Your task to perform on an android device: open wifi settings Image 0: 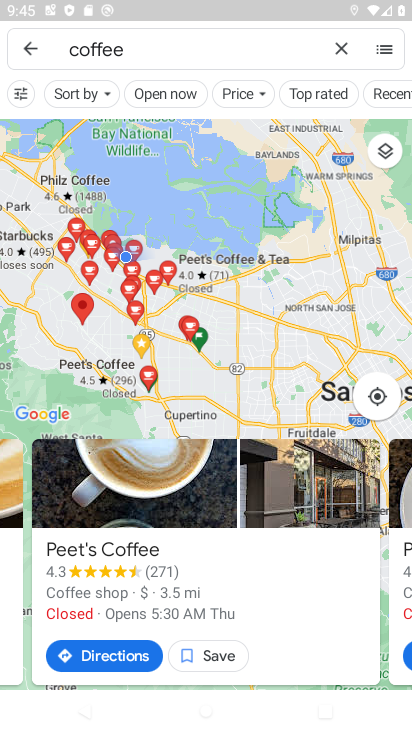
Step 0: press home button
Your task to perform on an android device: open wifi settings Image 1: 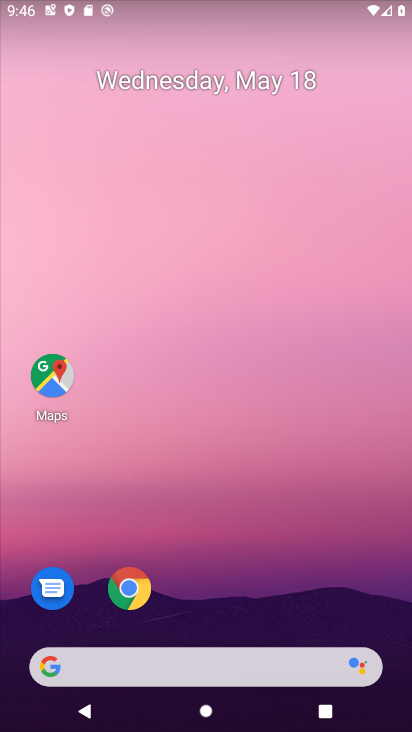
Step 1: drag from (263, 695) to (169, 135)
Your task to perform on an android device: open wifi settings Image 2: 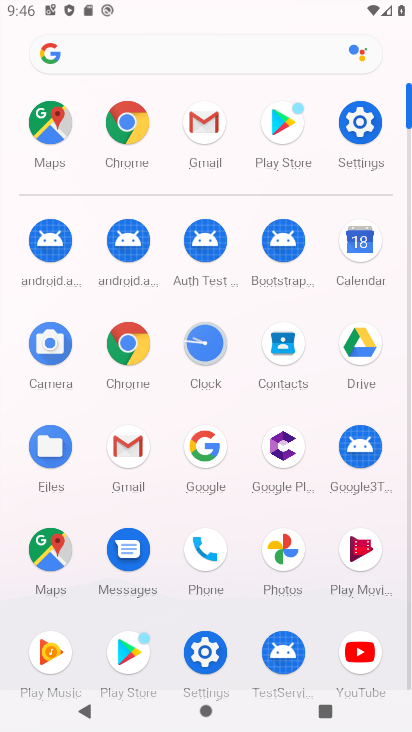
Step 2: click (354, 134)
Your task to perform on an android device: open wifi settings Image 3: 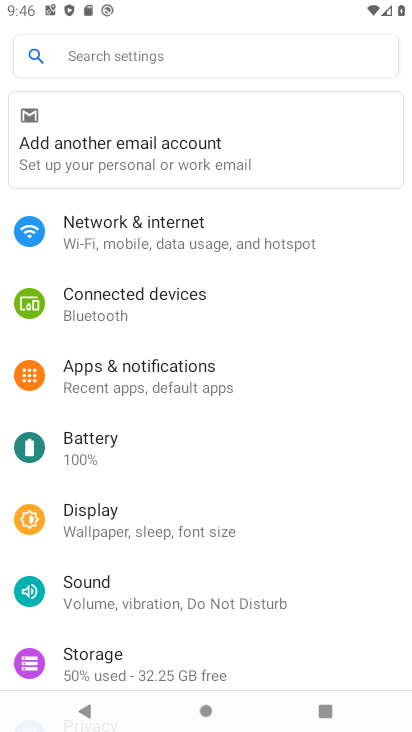
Step 3: click (142, 216)
Your task to perform on an android device: open wifi settings Image 4: 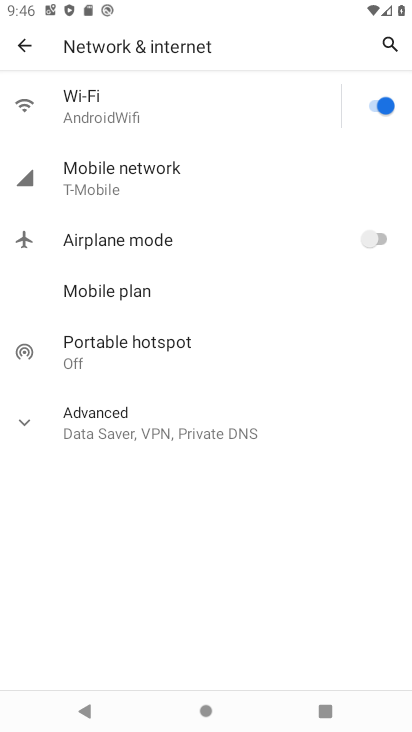
Step 4: click (158, 113)
Your task to perform on an android device: open wifi settings Image 5: 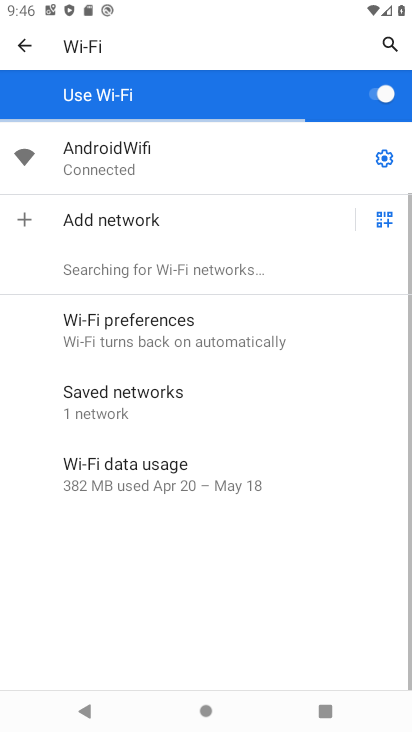
Step 5: task complete